Your task to perform on an android device: turn notification dots on Image 0: 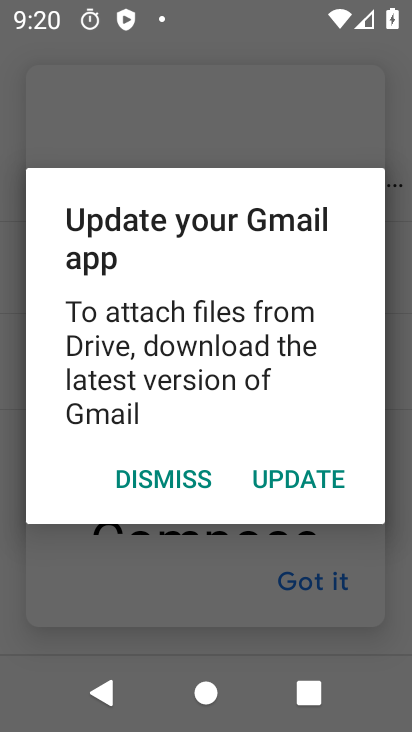
Step 0: press home button
Your task to perform on an android device: turn notification dots on Image 1: 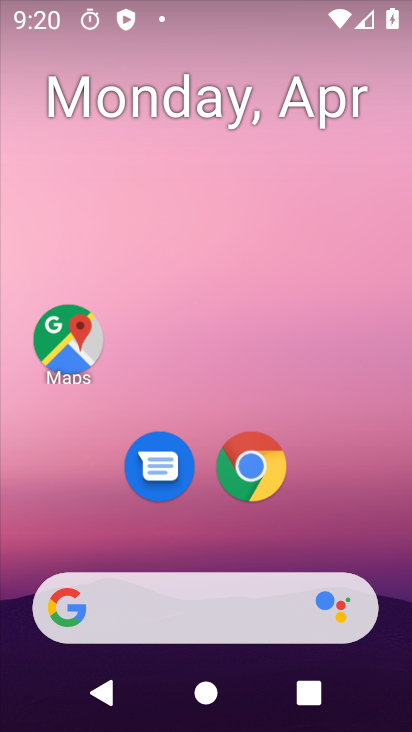
Step 1: drag from (215, 554) to (252, 35)
Your task to perform on an android device: turn notification dots on Image 2: 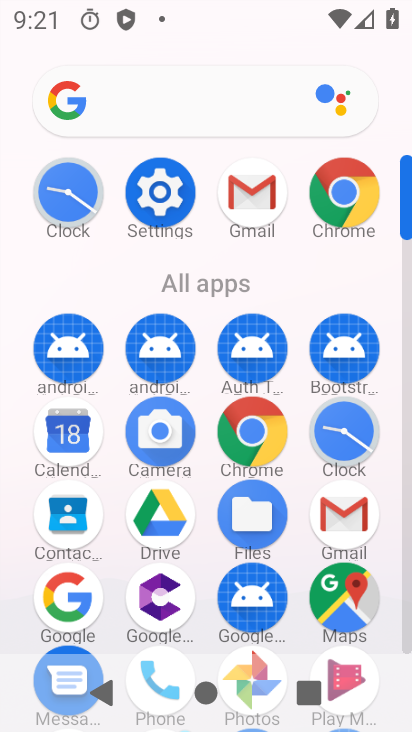
Step 2: click (163, 192)
Your task to perform on an android device: turn notification dots on Image 3: 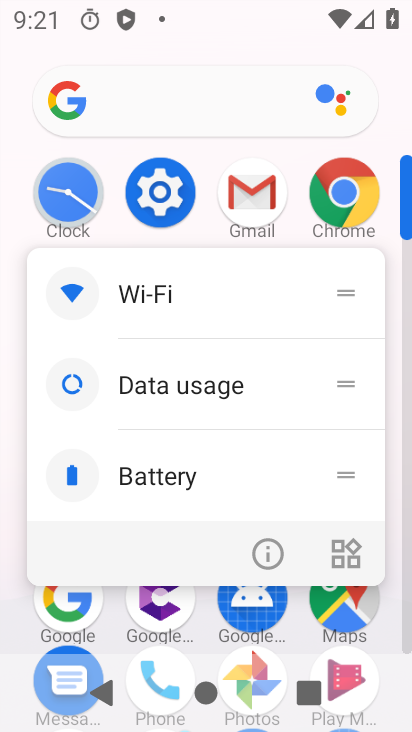
Step 3: click (163, 192)
Your task to perform on an android device: turn notification dots on Image 4: 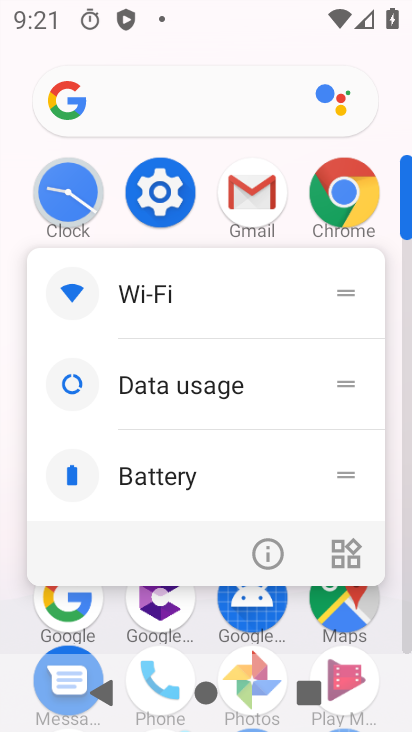
Step 4: click (163, 192)
Your task to perform on an android device: turn notification dots on Image 5: 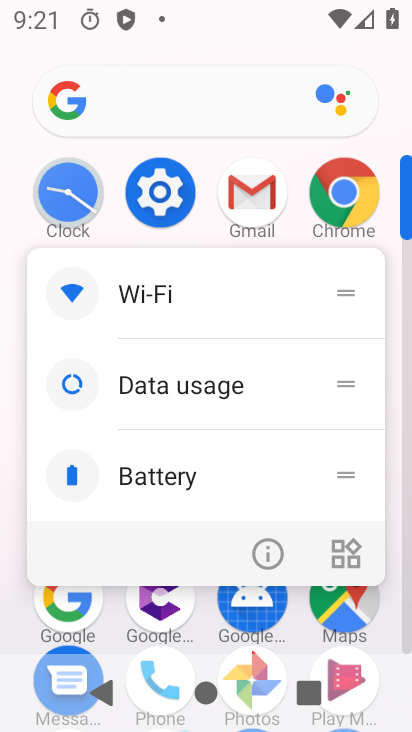
Step 5: click (176, 161)
Your task to perform on an android device: turn notification dots on Image 6: 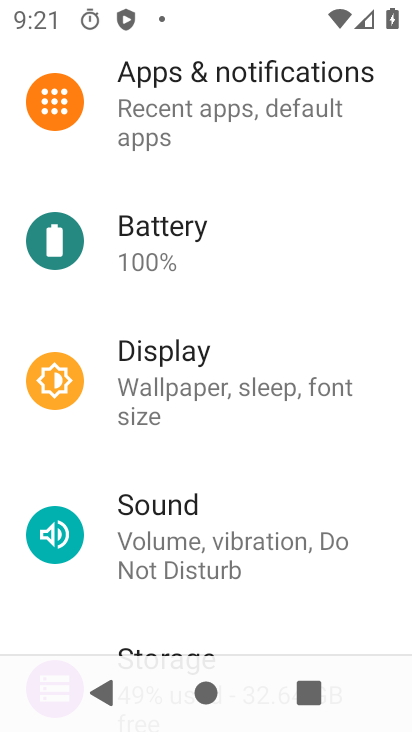
Step 6: click (190, 122)
Your task to perform on an android device: turn notification dots on Image 7: 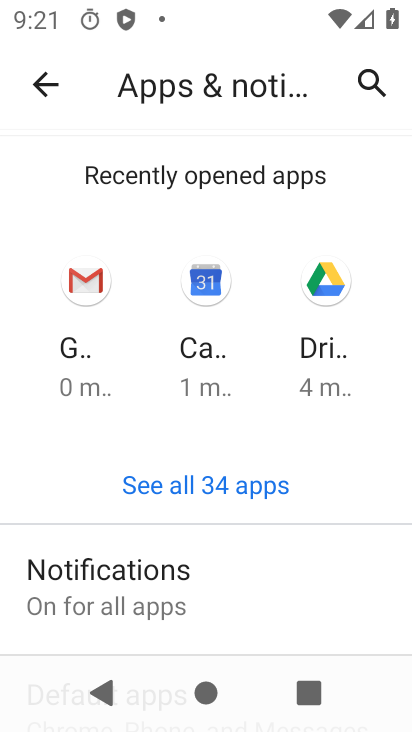
Step 7: click (161, 591)
Your task to perform on an android device: turn notification dots on Image 8: 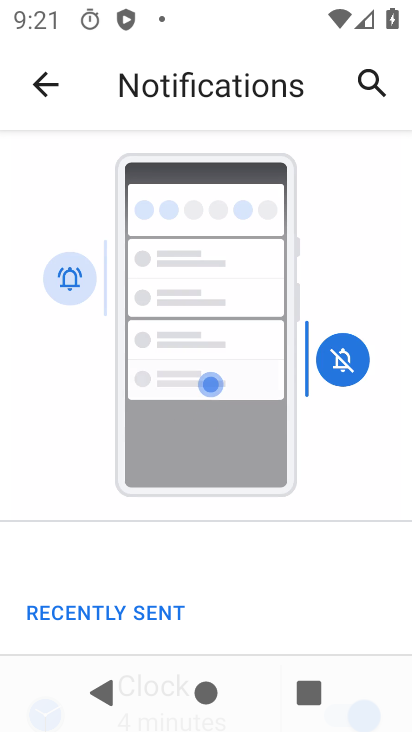
Step 8: drag from (178, 585) to (156, 7)
Your task to perform on an android device: turn notification dots on Image 9: 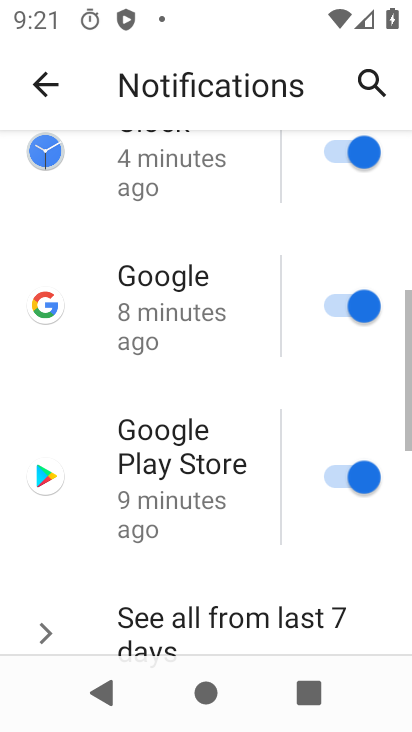
Step 9: drag from (234, 521) to (250, 2)
Your task to perform on an android device: turn notification dots on Image 10: 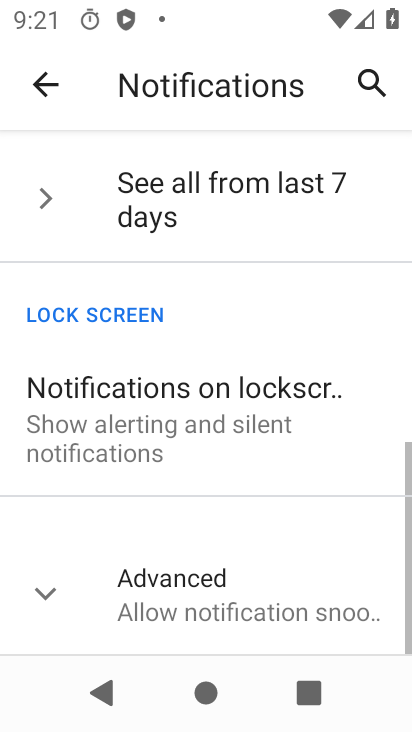
Step 10: click (236, 584)
Your task to perform on an android device: turn notification dots on Image 11: 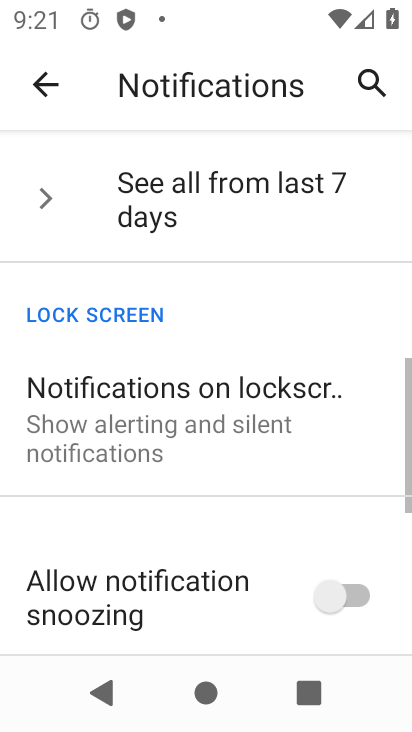
Step 11: task complete